Your task to perform on an android device: check storage Image 0: 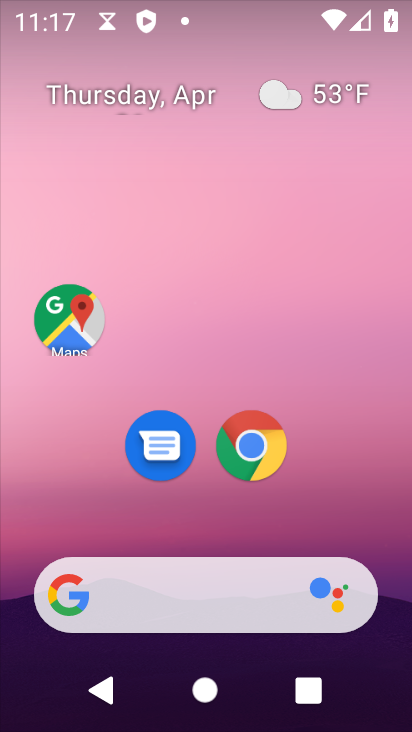
Step 0: drag from (198, 548) to (316, 90)
Your task to perform on an android device: check storage Image 1: 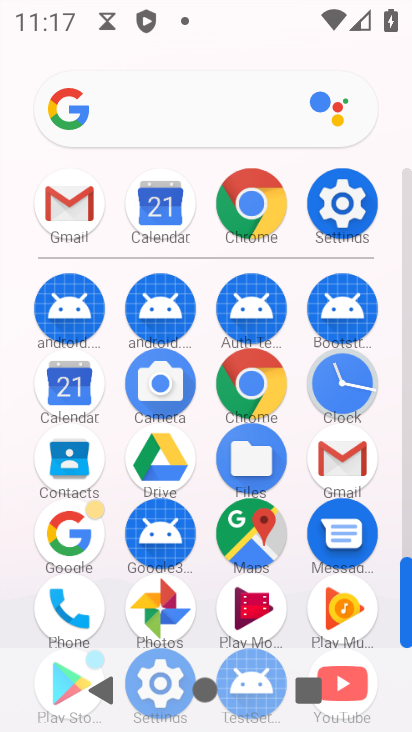
Step 1: click (337, 219)
Your task to perform on an android device: check storage Image 2: 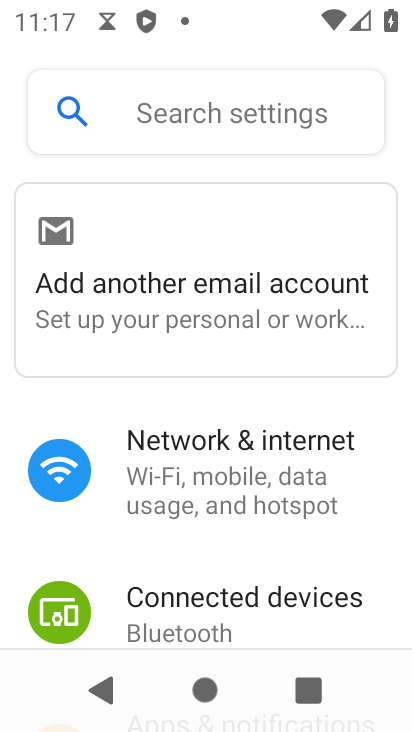
Step 2: drag from (169, 616) to (356, 142)
Your task to perform on an android device: check storage Image 3: 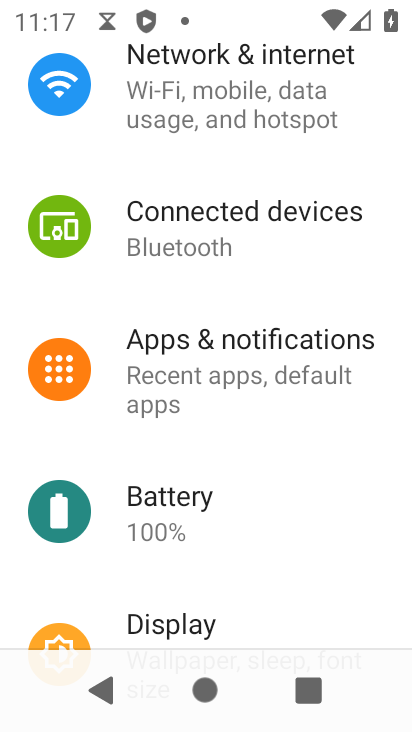
Step 3: drag from (213, 581) to (359, 102)
Your task to perform on an android device: check storage Image 4: 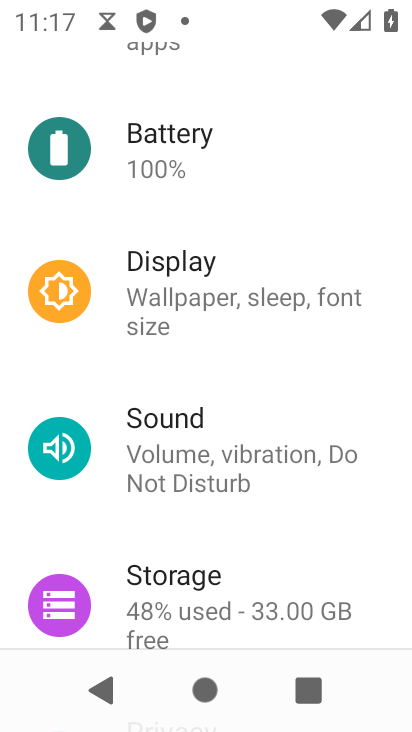
Step 4: drag from (202, 517) to (336, 185)
Your task to perform on an android device: check storage Image 5: 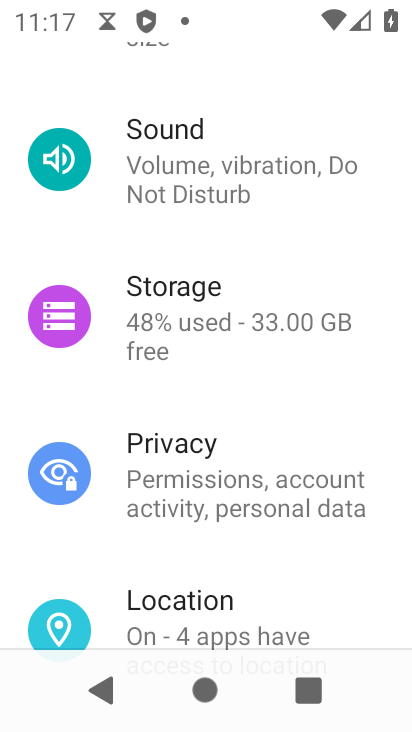
Step 5: click (165, 307)
Your task to perform on an android device: check storage Image 6: 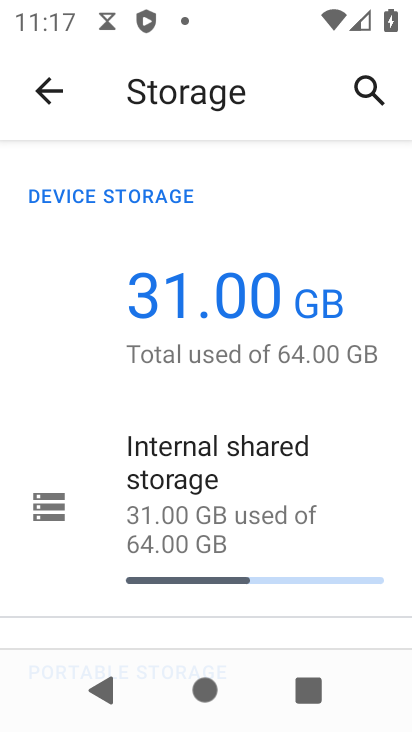
Step 6: task complete